Your task to perform on an android device: Do I have any events tomorrow? Image 0: 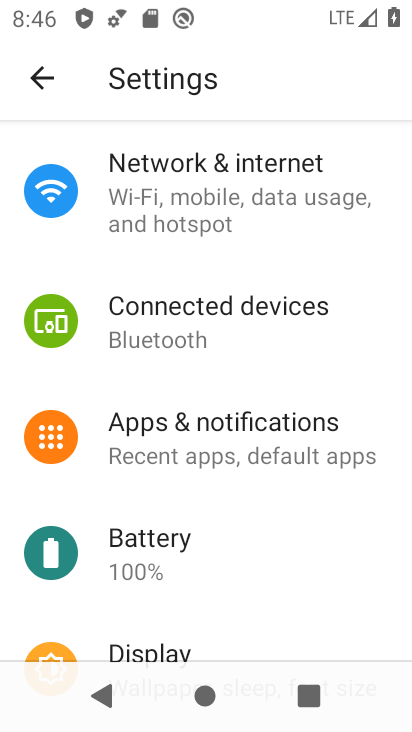
Step 0: press back button
Your task to perform on an android device: Do I have any events tomorrow? Image 1: 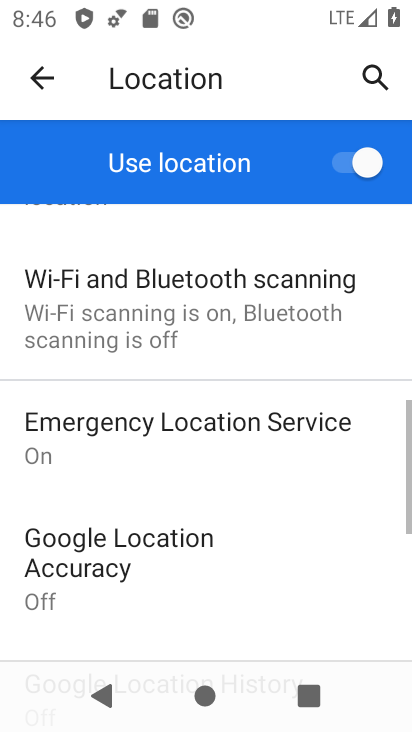
Step 1: press back button
Your task to perform on an android device: Do I have any events tomorrow? Image 2: 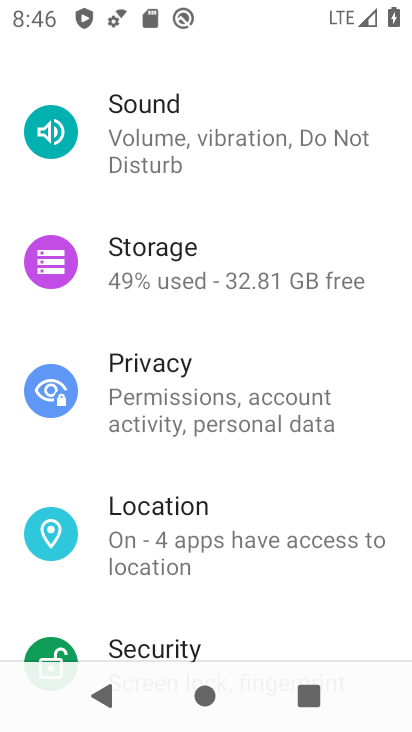
Step 2: press back button
Your task to perform on an android device: Do I have any events tomorrow? Image 3: 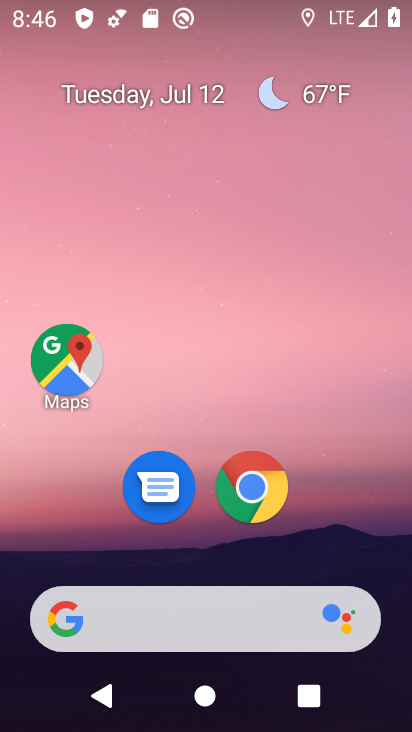
Step 3: drag from (216, 580) to (289, 12)
Your task to perform on an android device: Do I have any events tomorrow? Image 4: 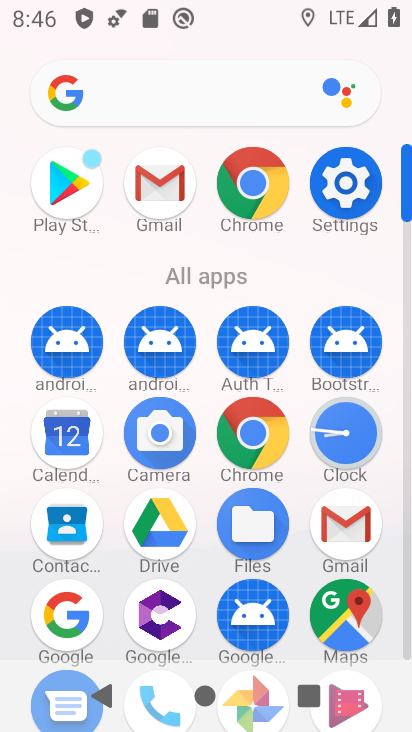
Step 4: click (73, 434)
Your task to perform on an android device: Do I have any events tomorrow? Image 5: 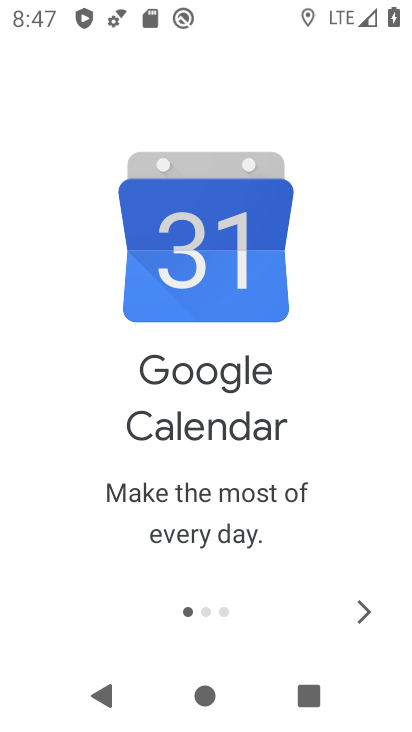
Step 5: click (358, 612)
Your task to perform on an android device: Do I have any events tomorrow? Image 6: 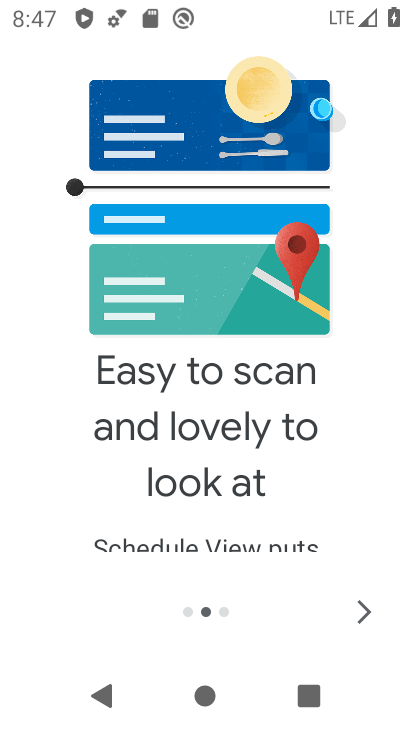
Step 6: click (359, 602)
Your task to perform on an android device: Do I have any events tomorrow? Image 7: 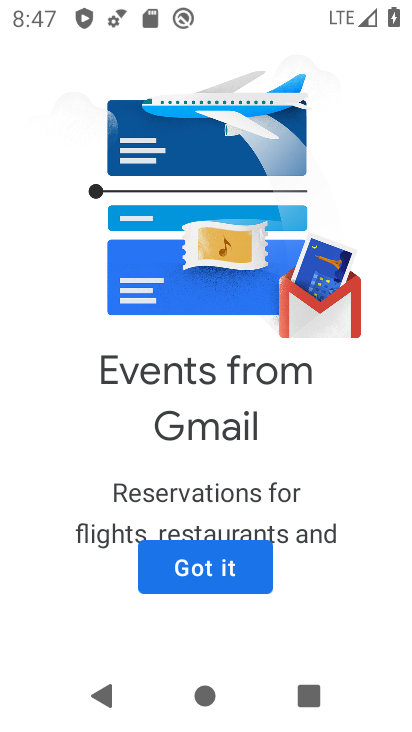
Step 7: click (227, 576)
Your task to perform on an android device: Do I have any events tomorrow? Image 8: 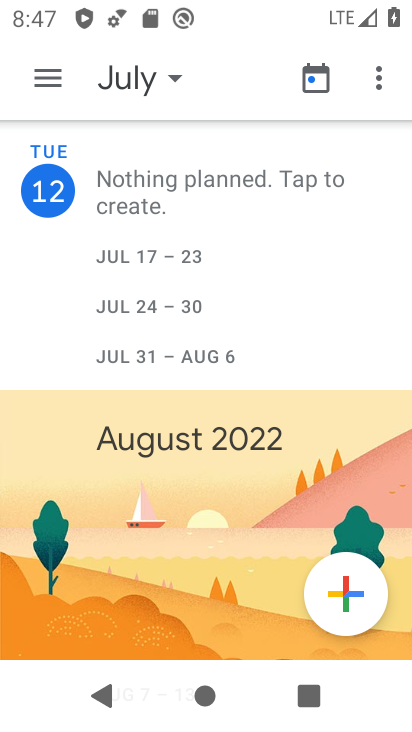
Step 8: task complete